Your task to perform on an android device: Do I have any events today? Image 0: 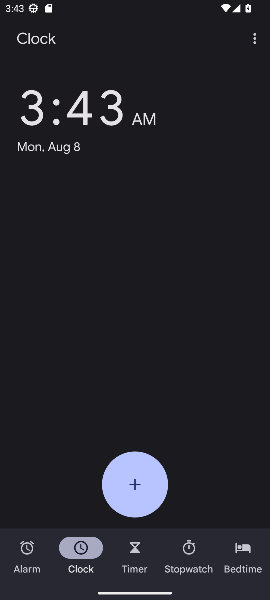
Step 0: press back button
Your task to perform on an android device: Do I have any events today? Image 1: 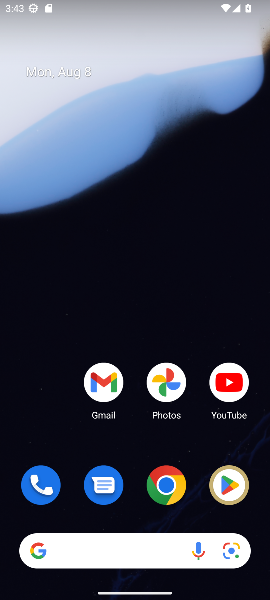
Step 1: drag from (192, 523) to (160, 22)
Your task to perform on an android device: Do I have any events today? Image 2: 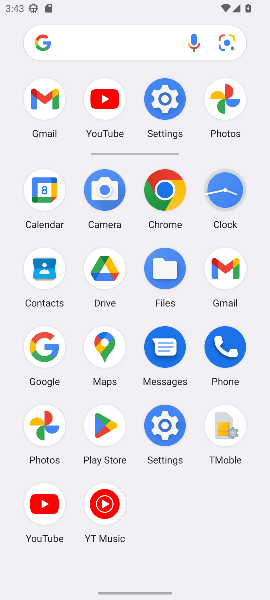
Step 2: drag from (116, 395) to (96, 71)
Your task to perform on an android device: Do I have any events today? Image 3: 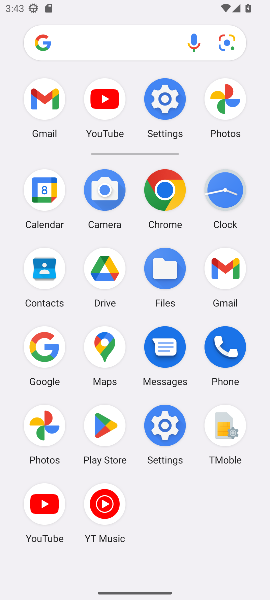
Step 3: click (41, 194)
Your task to perform on an android device: Do I have any events today? Image 4: 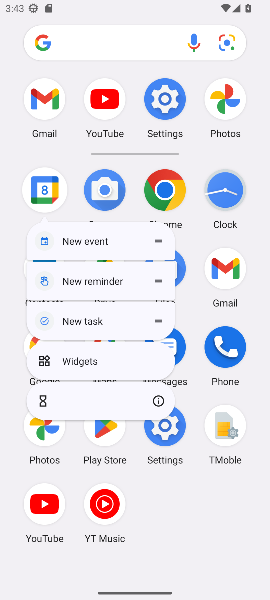
Step 4: click (41, 194)
Your task to perform on an android device: Do I have any events today? Image 5: 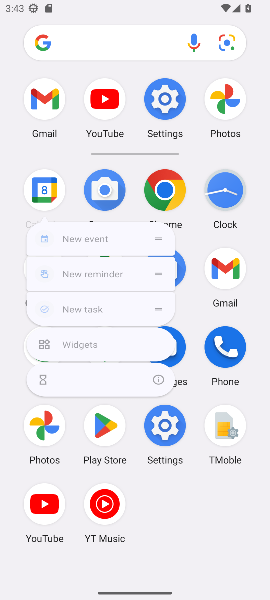
Step 5: click (41, 194)
Your task to perform on an android device: Do I have any events today? Image 6: 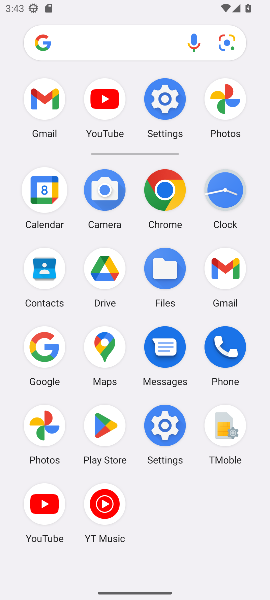
Step 6: click (41, 194)
Your task to perform on an android device: Do I have any events today? Image 7: 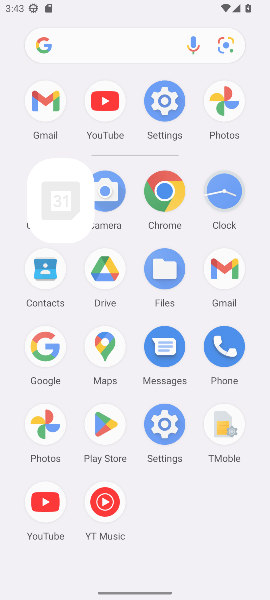
Step 7: click (46, 193)
Your task to perform on an android device: Do I have any events today? Image 8: 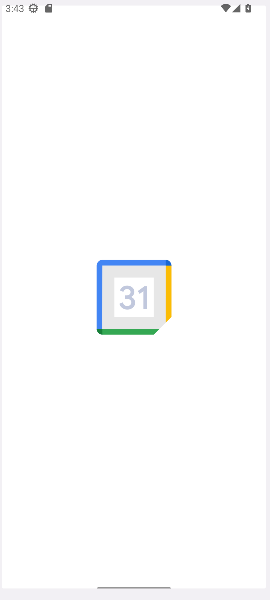
Step 8: click (47, 194)
Your task to perform on an android device: Do I have any events today? Image 9: 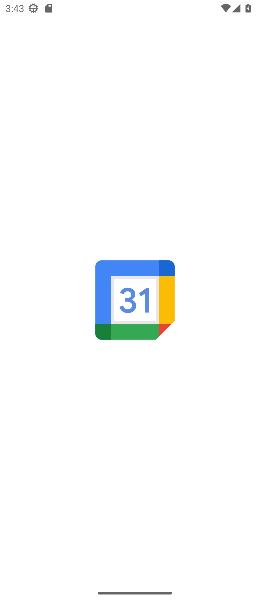
Step 9: click (47, 194)
Your task to perform on an android device: Do I have any events today? Image 10: 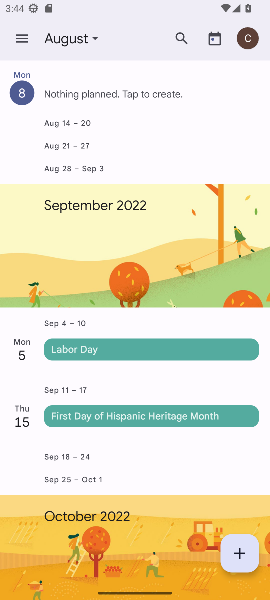
Step 10: click (96, 40)
Your task to perform on an android device: Do I have any events today? Image 11: 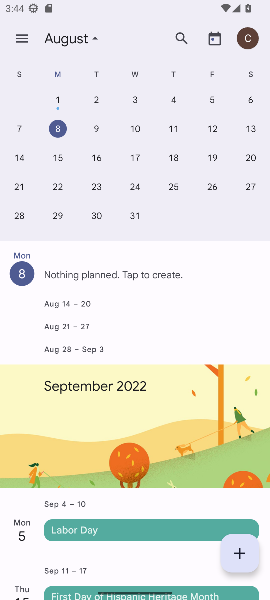
Step 11: drag from (161, 133) to (6, 174)
Your task to perform on an android device: Do I have any events today? Image 12: 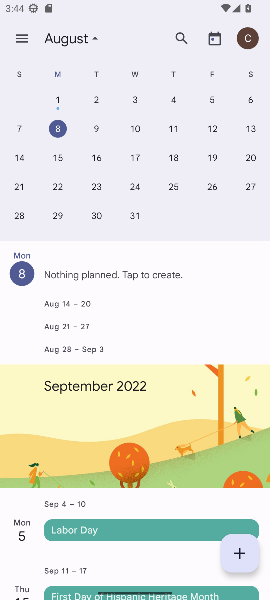
Step 12: drag from (119, 177) to (27, 178)
Your task to perform on an android device: Do I have any events today? Image 13: 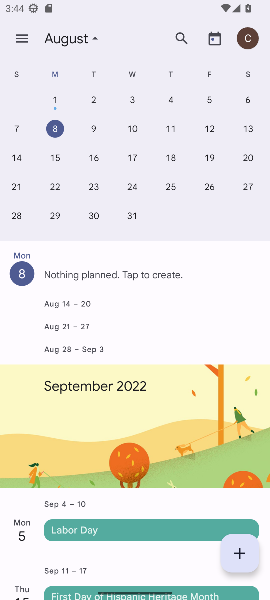
Step 13: drag from (51, 150) to (62, 117)
Your task to perform on an android device: Do I have any events today? Image 14: 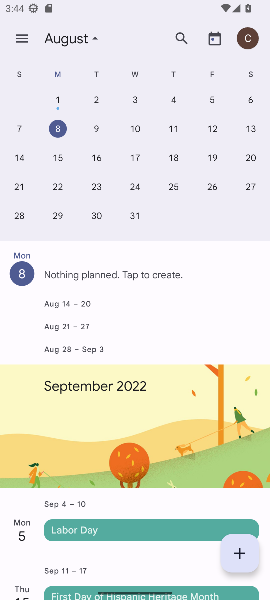
Step 14: click (57, 126)
Your task to perform on an android device: Do I have any events today? Image 15: 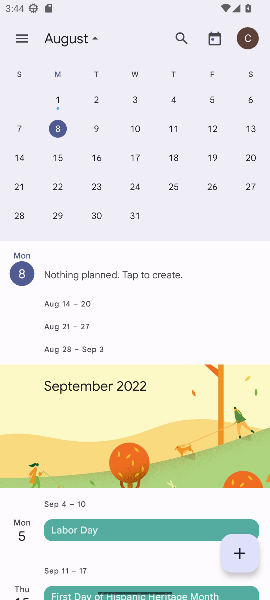
Step 15: task complete